Your task to perform on an android device: see tabs open on other devices in the chrome app Image 0: 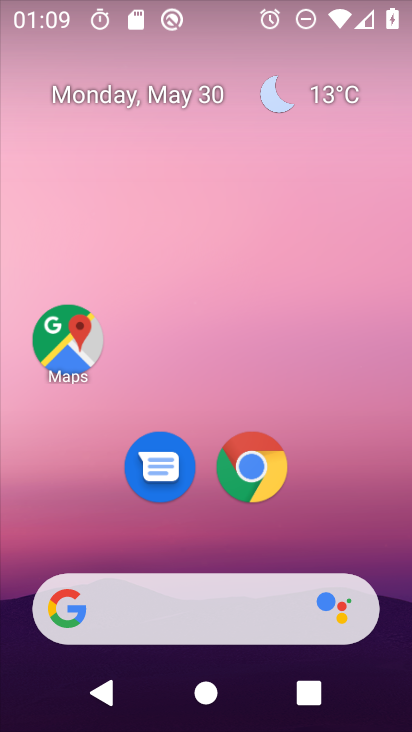
Step 0: click (263, 478)
Your task to perform on an android device: see tabs open on other devices in the chrome app Image 1: 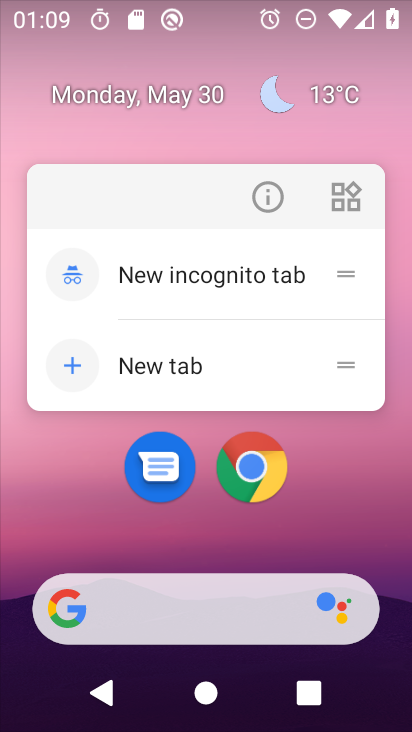
Step 1: click (244, 492)
Your task to perform on an android device: see tabs open on other devices in the chrome app Image 2: 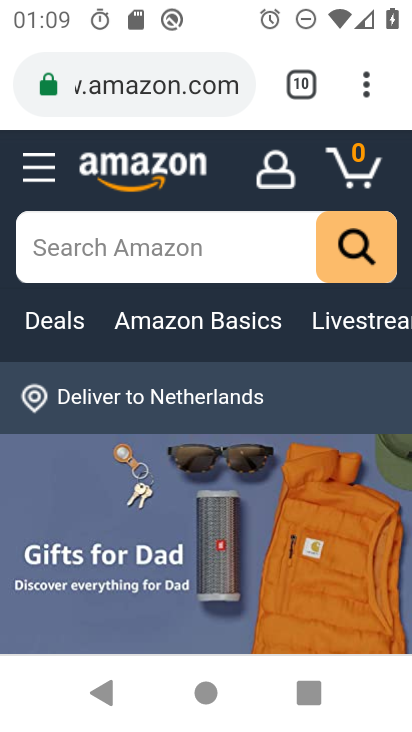
Step 2: task complete